Your task to perform on an android device: turn notification dots on Image 0: 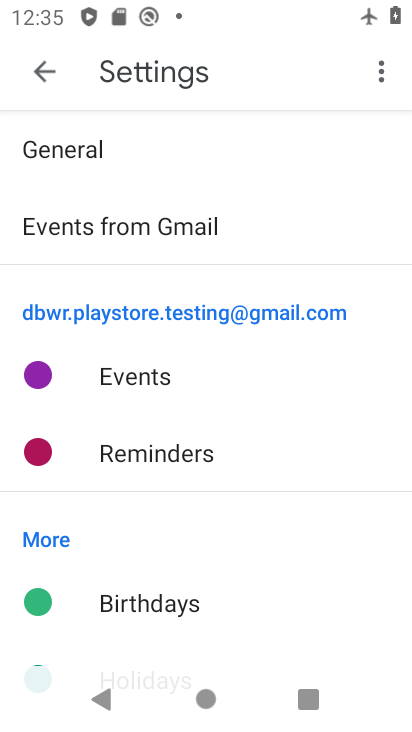
Step 0: press home button
Your task to perform on an android device: turn notification dots on Image 1: 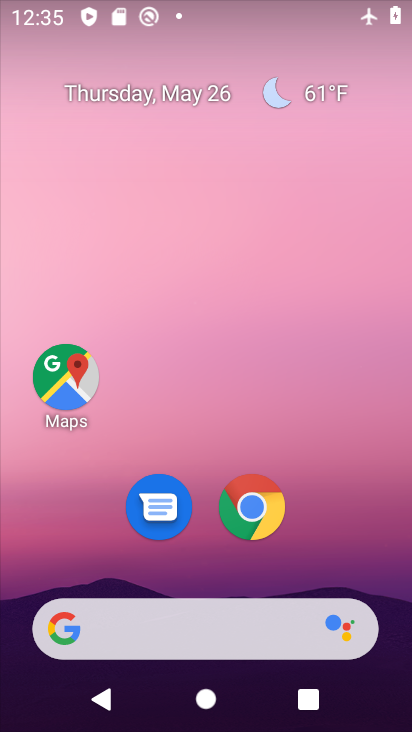
Step 1: drag from (331, 562) to (312, 134)
Your task to perform on an android device: turn notification dots on Image 2: 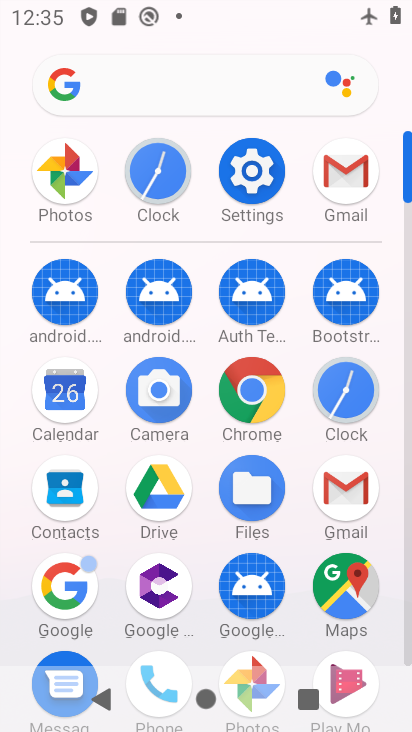
Step 2: click (264, 191)
Your task to perform on an android device: turn notification dots on Image 3: 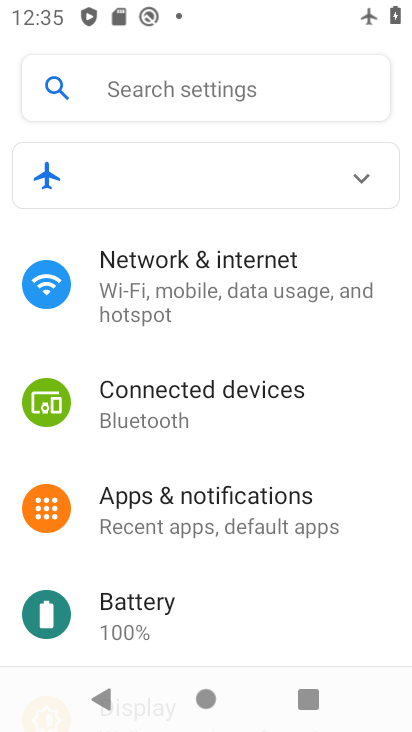
Step 3: click (248, 502)
Your task to perform on an android device: turn notification dots on Image 4: 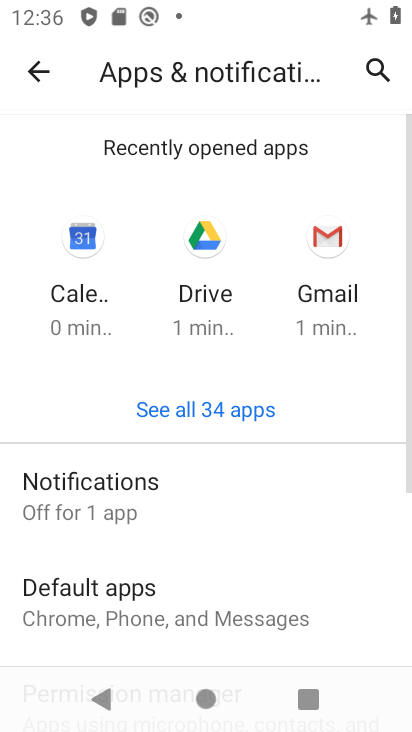
Step 4: click (212, 486)
Your task to perform on an android device: turn notification dots on Image 5: 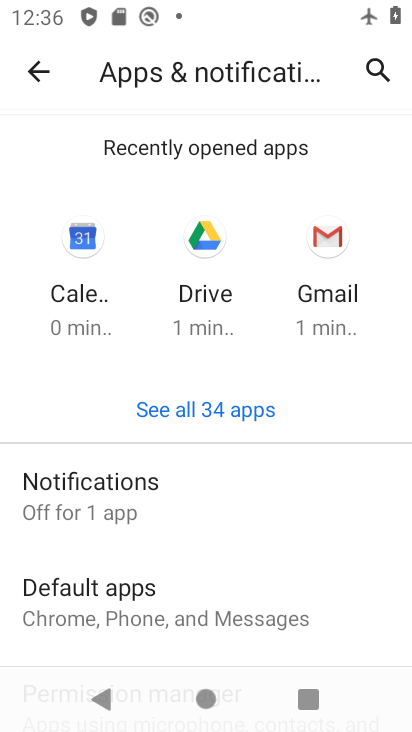
Step 5: drag from (253, 565) to (264, 186)
Your task to perform on an android device: turn notification dots on Image 6: 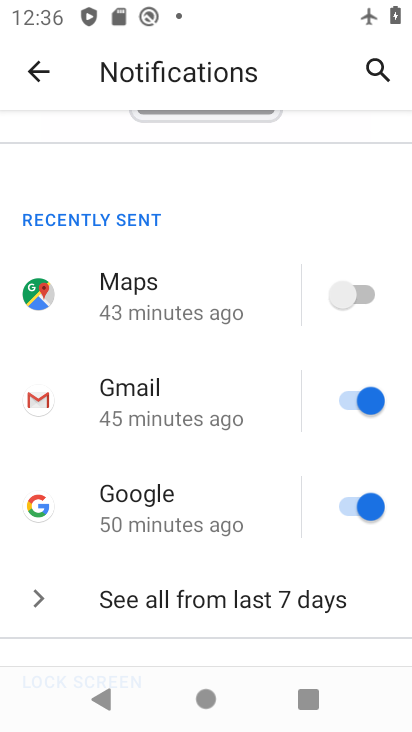
Step 6: drag from (217, 586) to (231, 147)
Your task to perform on an android device: turn notification dots on Image 7: 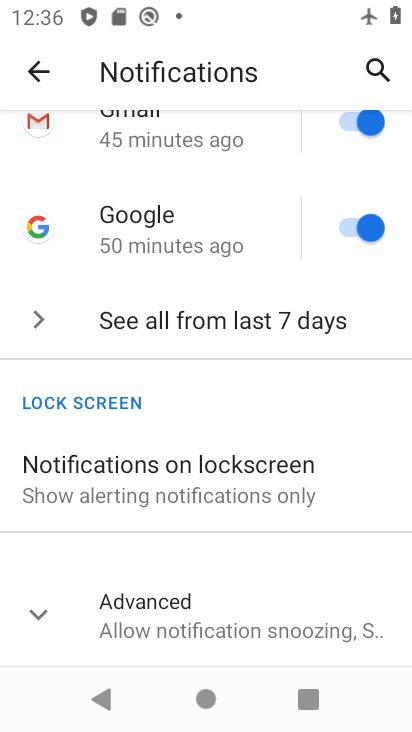
Step 7: click (194, 489)
Your task to perform on an android device: turn notification dots on Image 8: 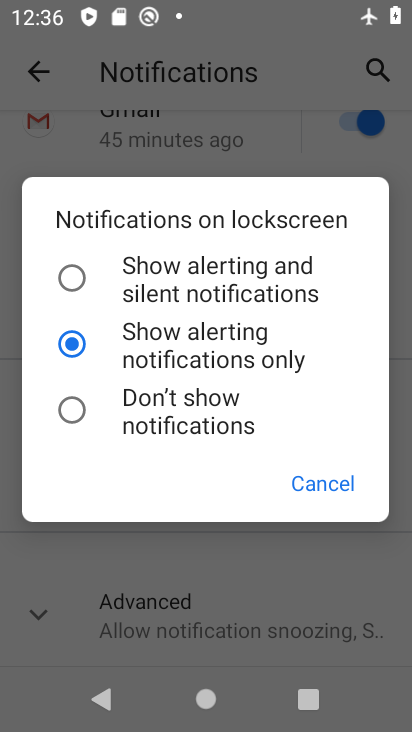
Step 8: click (322, 480)
Your task to perform on an android device: turn notification dots on Image 9: 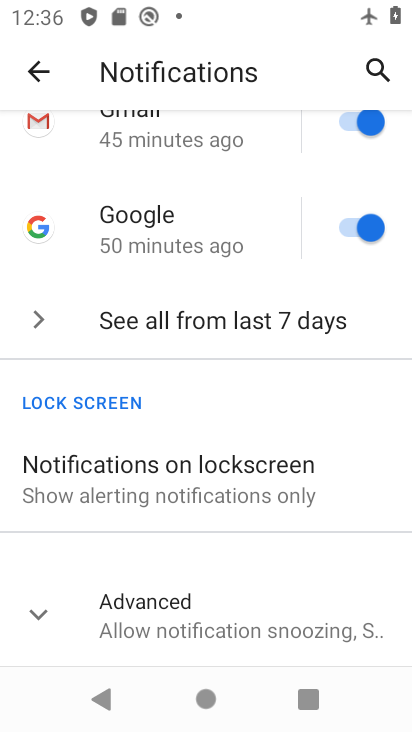
Step 9: click (251, 609)
Your task to perform on an android device: turn notification dots on Image 10: 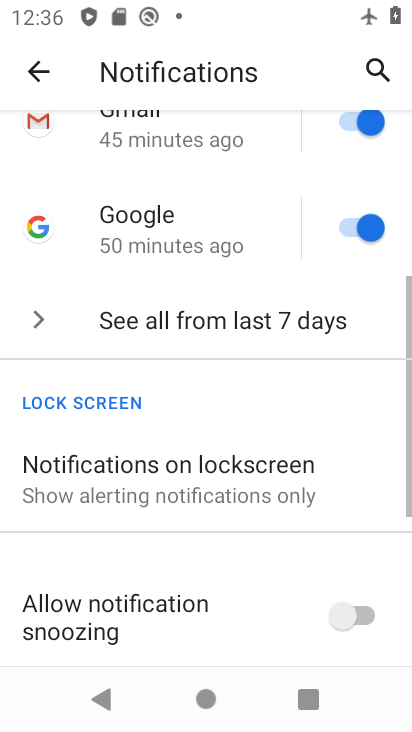
Step 10: task complete